Your task to perform on an android device: Clear all items from cart on target. Add jbl charge 4 to the cart on target Image 0: 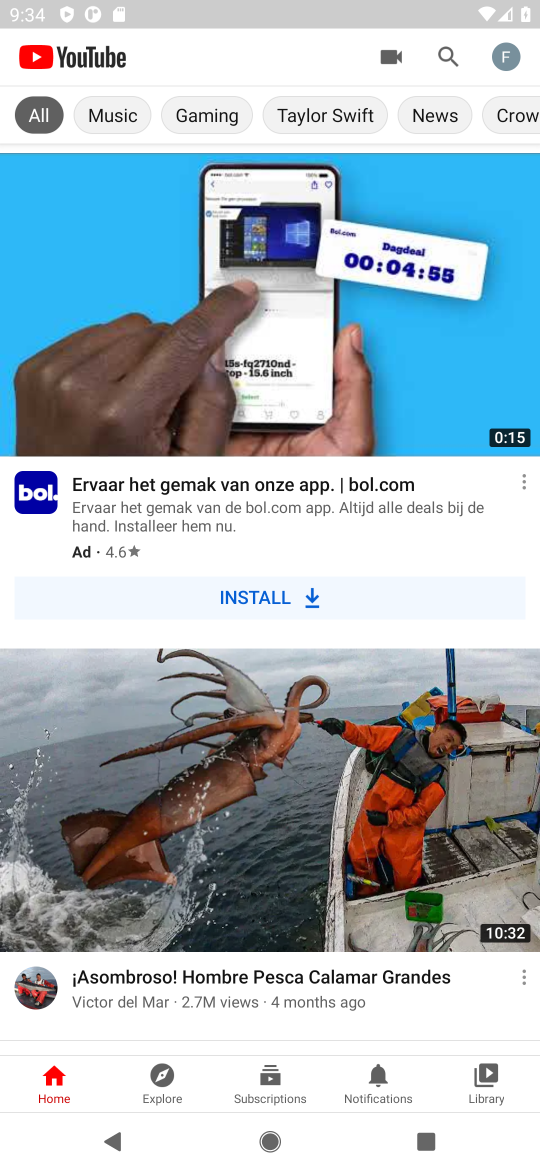
Step 0: press home button
Your task to perform on an android device: Clear all items from cart on target. Add jbl charge 4 to the cart on target Image 1: 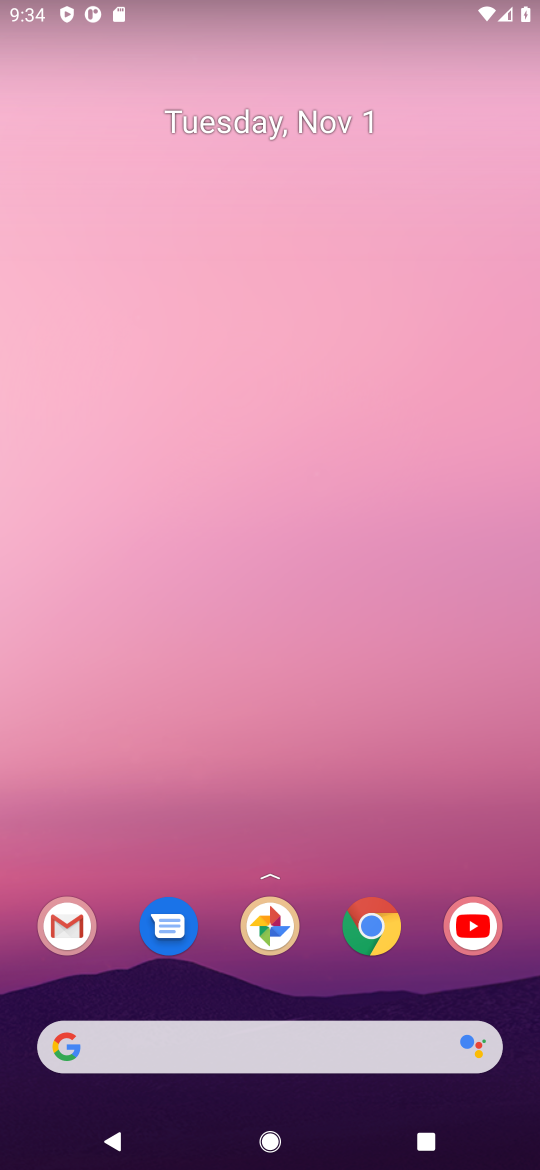
Step 1: click (375, 937)
Your task to perform on an android device: Clear all items from cart on target. Add jbl charge 4 to the cart on target Image 2: 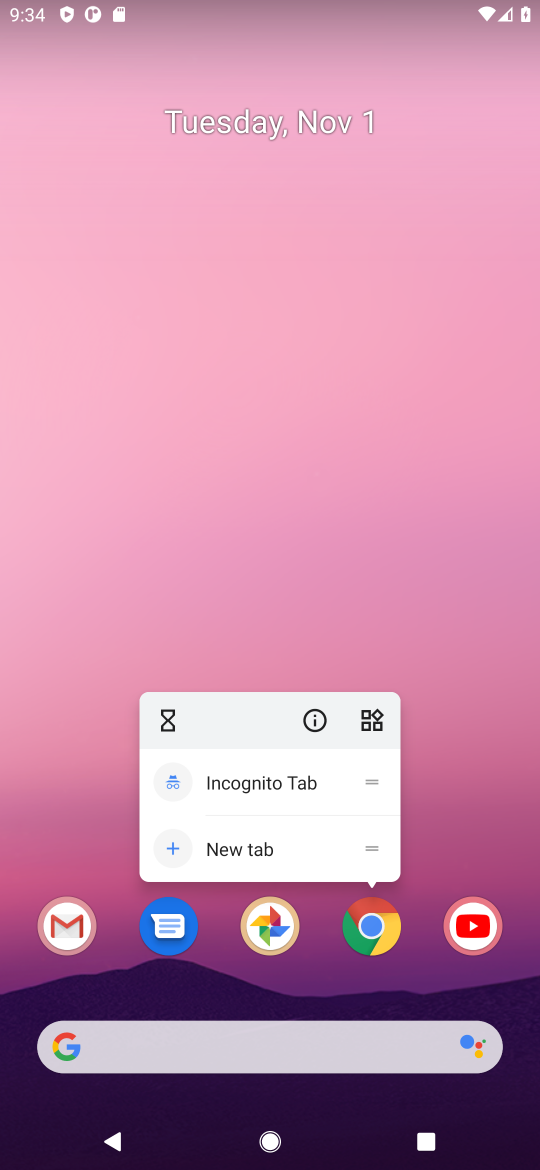
Step 2: click (381, 931)
Your task to perform on an android device: Clear all items from cart on target. Add jbl charge 4 to the cart on target Image 3: 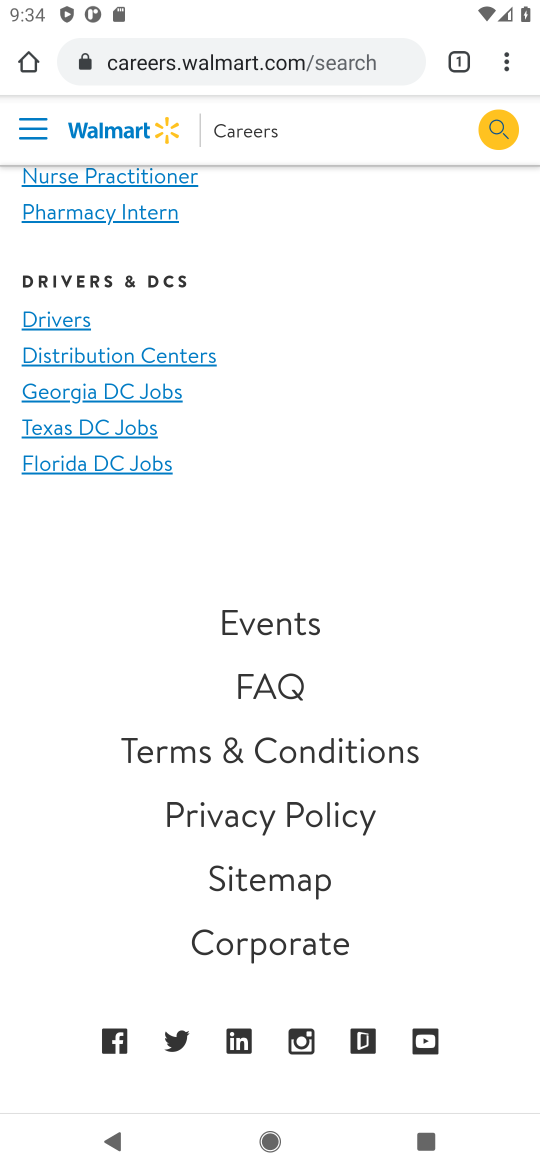
Step 3: click (218, 73)
Your task to perform on an android device: Clear all items from cart on target. Add jbl charge 4 to the cart on target Image 4: 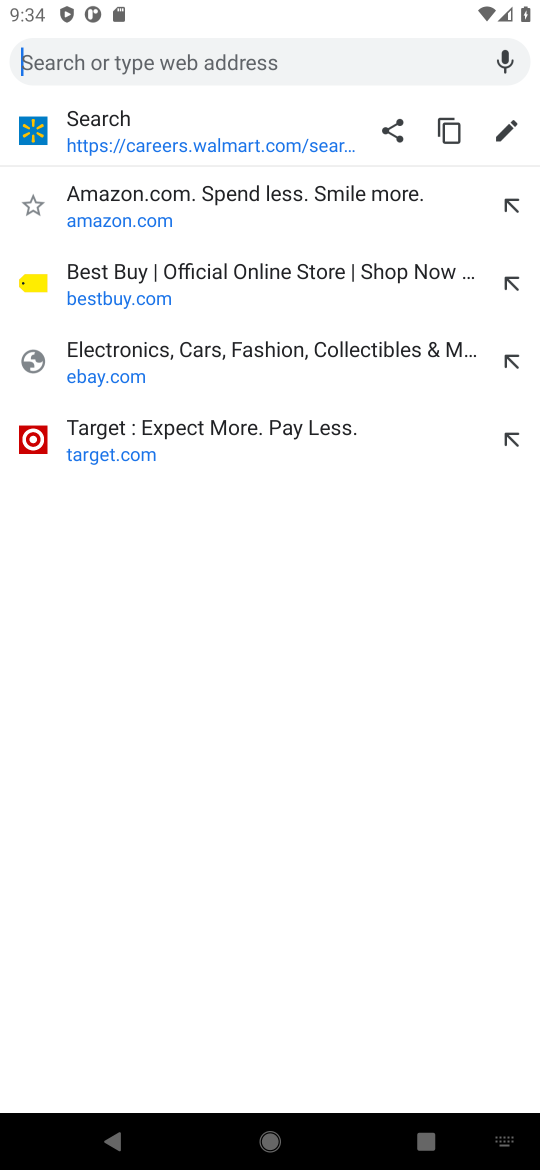
Step 4: type "target"
Your task to perform on an android device: Clear all items from cart on target. Add jbl charge 4 to the cart on target Image 5: 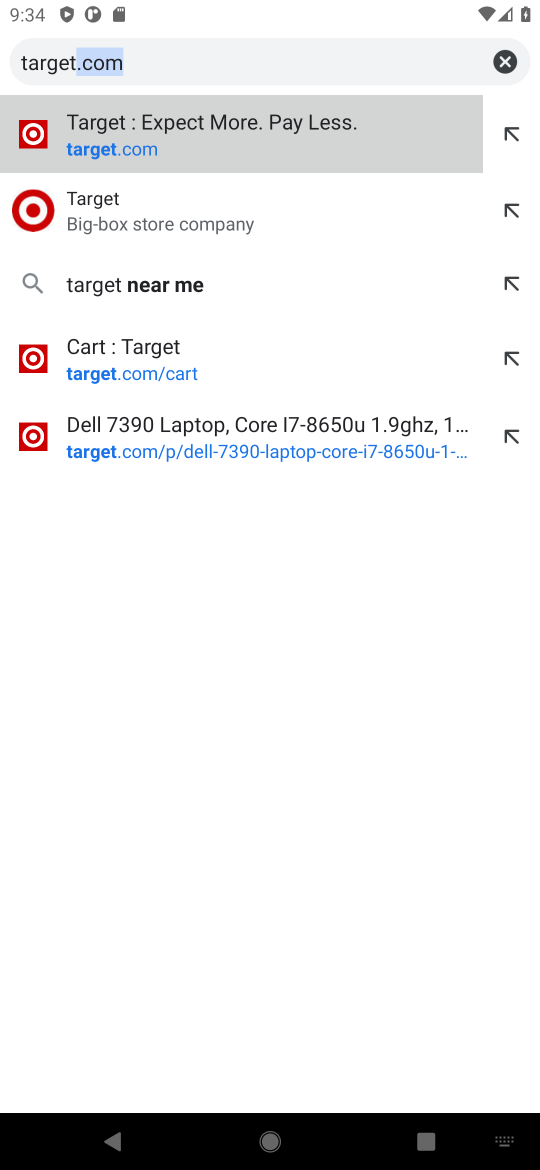
Step 5: type ""
Your task to perform on an android device: Clear all items from cart on target. Add jbl charge 4 to the cart on target Image 6: 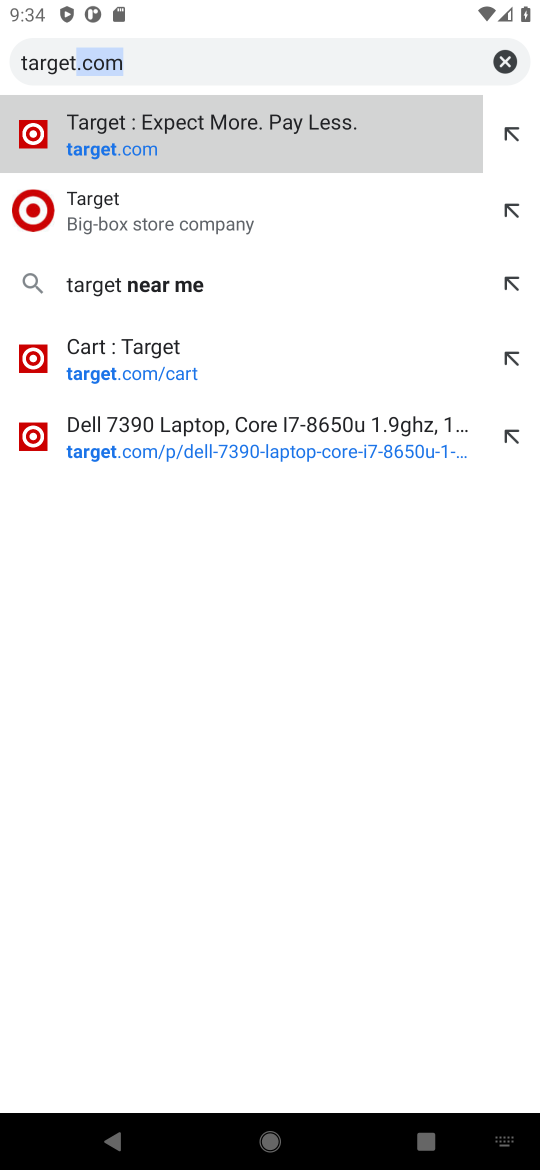
Step 6: click (238, 142)
Your task to perform on an android device: Clear all items from cart on target. Add jbl charge 4 to the cart on target Image 7: 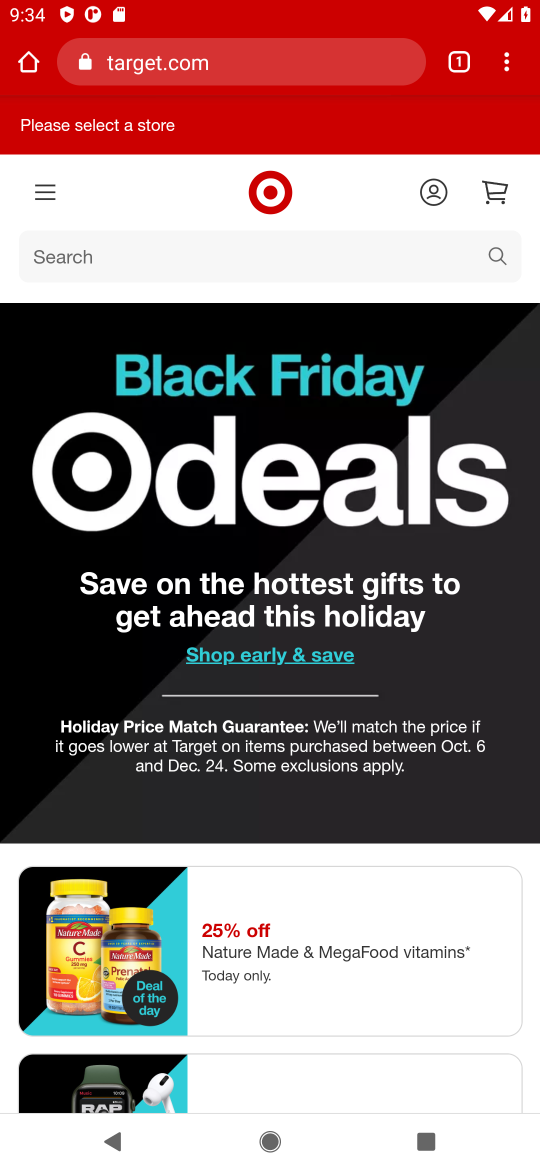
Step 7: click (489, 243)
Your task to perform on an android device: Clear all items from cart on target. Add jbl charge 4 to the cart on target Image 8: 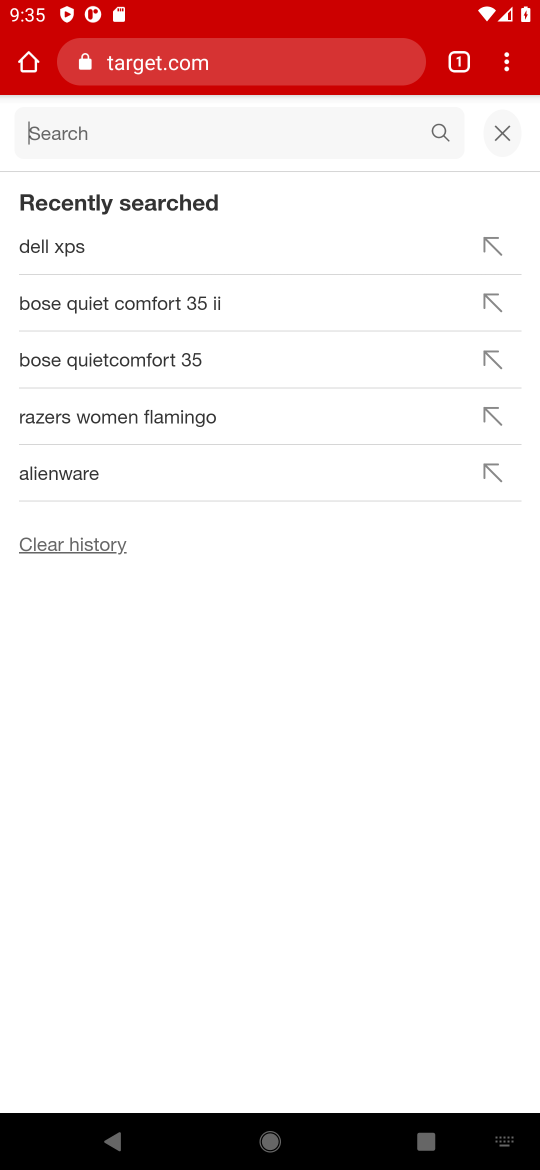
Step 8: type "jbl charge 4 "
Your task to perform on an android device: Clear all items from cart on target. Add jbl charge 4 to the cart on target Image 9: 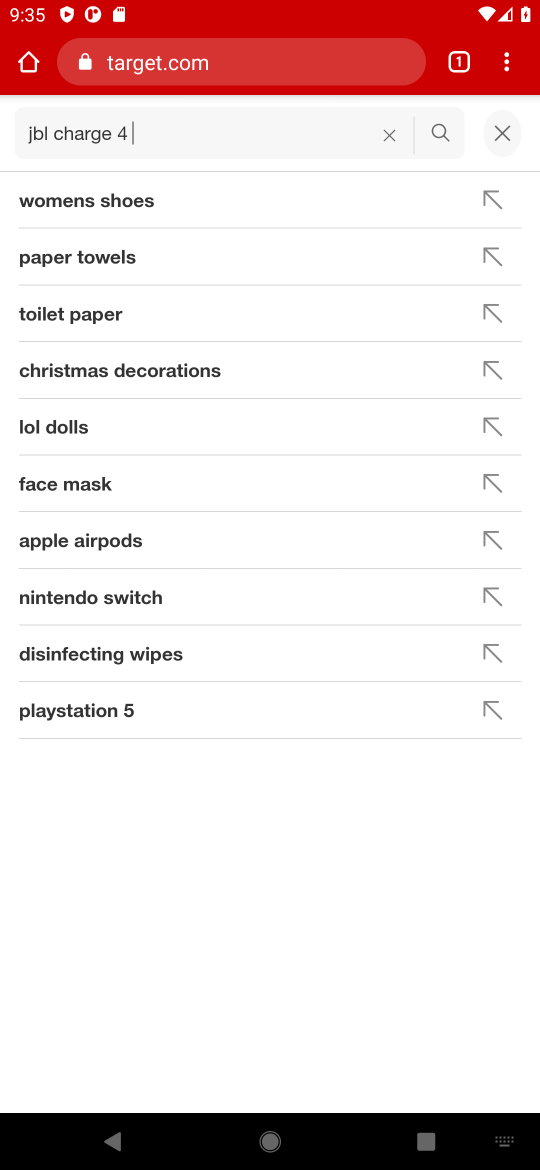
Step 9: type ""
Your task to perform on an android device: Clear all items from cart on target. Add jbl charge 4 to the cart on target Image 10: 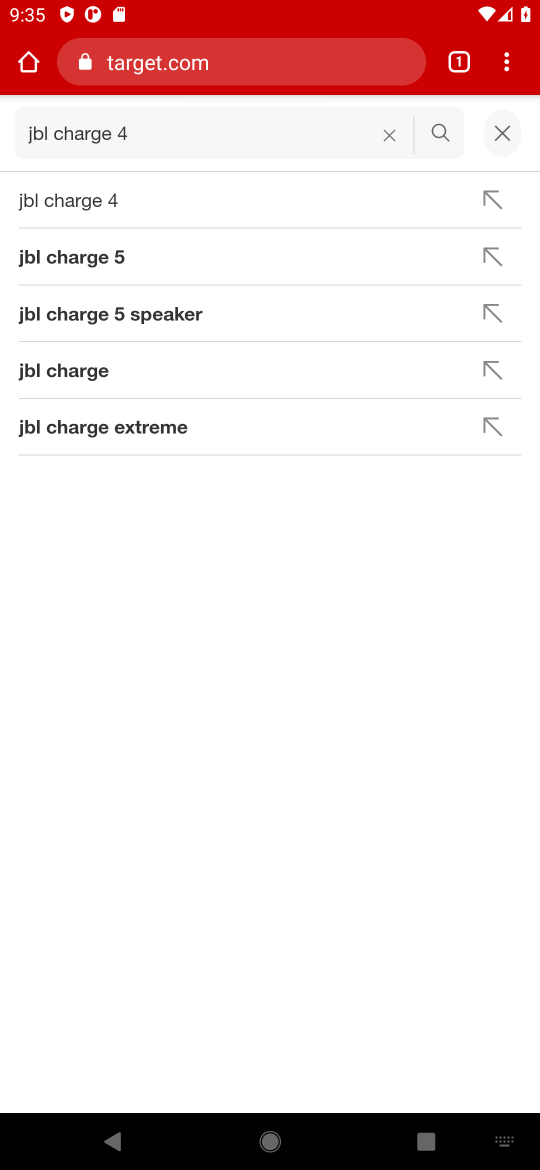
Step 10: click (64, 194)
Your task to perform on an android device: Clear all items from cart on target. Add jbl charge 4 to the cart on target Image 11: 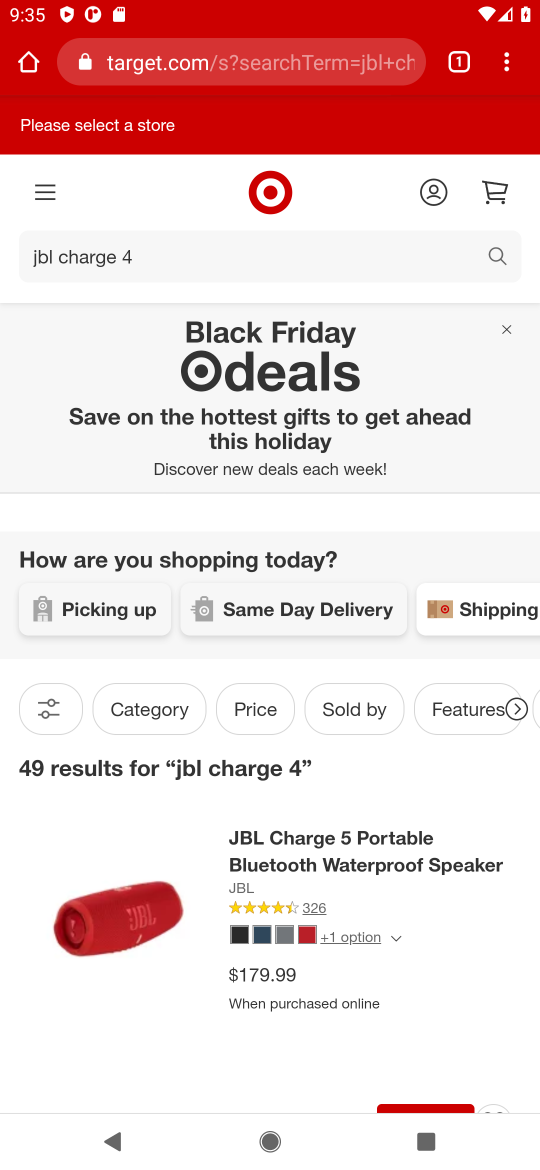
Step 11: drag from (307, 959) to (321, 541)
Your task to perform on an android device: Clear all items from cart on target. Add jbl charge 4 to the cart on target Image 12: 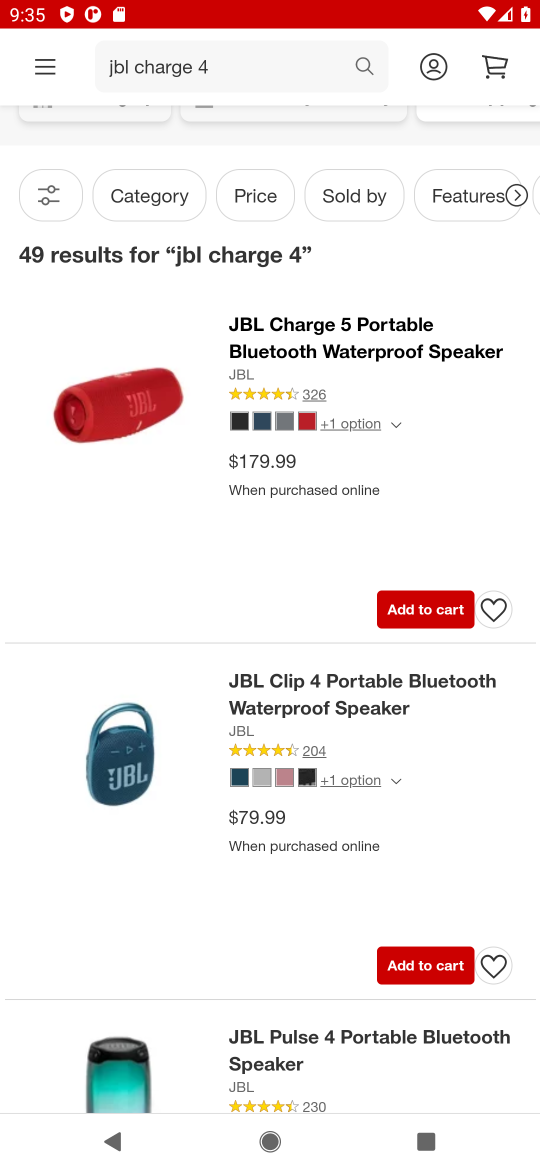
Step 12: drag from (271, 1058) to (324, 264)
Your task to perform on an android device: Clear all items from cart on target. Add jbl charge 4 to the cart on target Image 13: 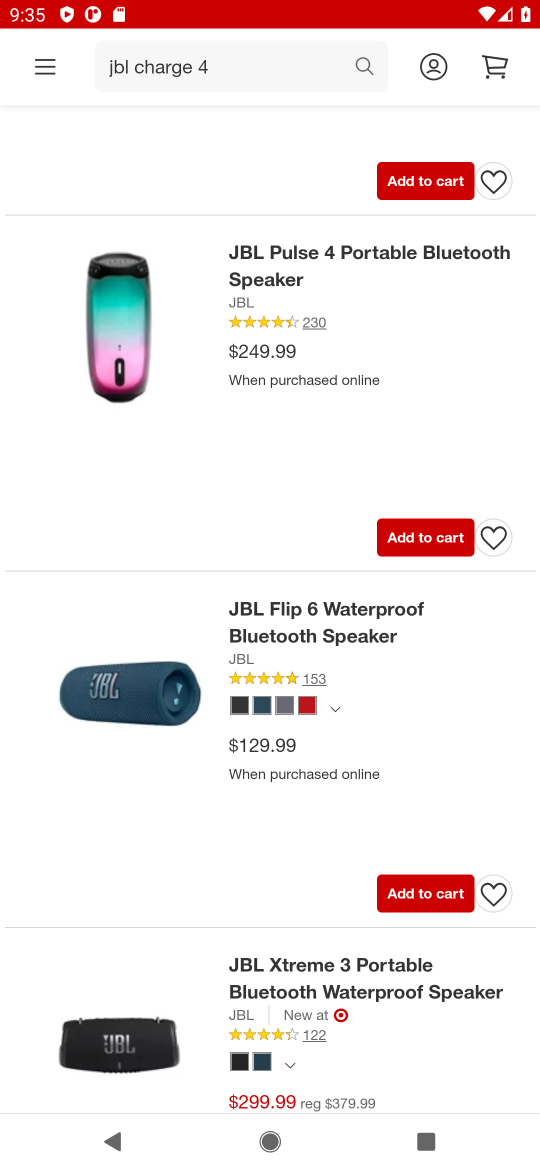
Step 13: drag from (313, 989) to (321, 492)
Your task to perform on an android device: Clear all items from cart on target. Add jbl charge 4 to the cart on target Image 14: 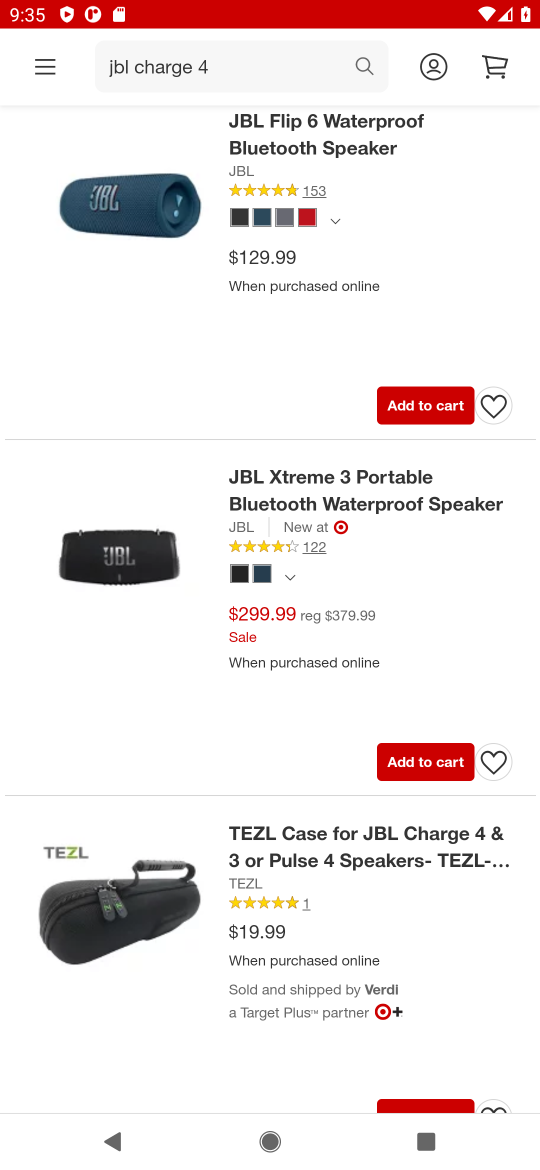
Step 14: drag from (300, 922) to (300, 734)
Your task to perform on an android device: Clear all items from cart on target. Add jbl charge 4 to the cart on target Image 15: 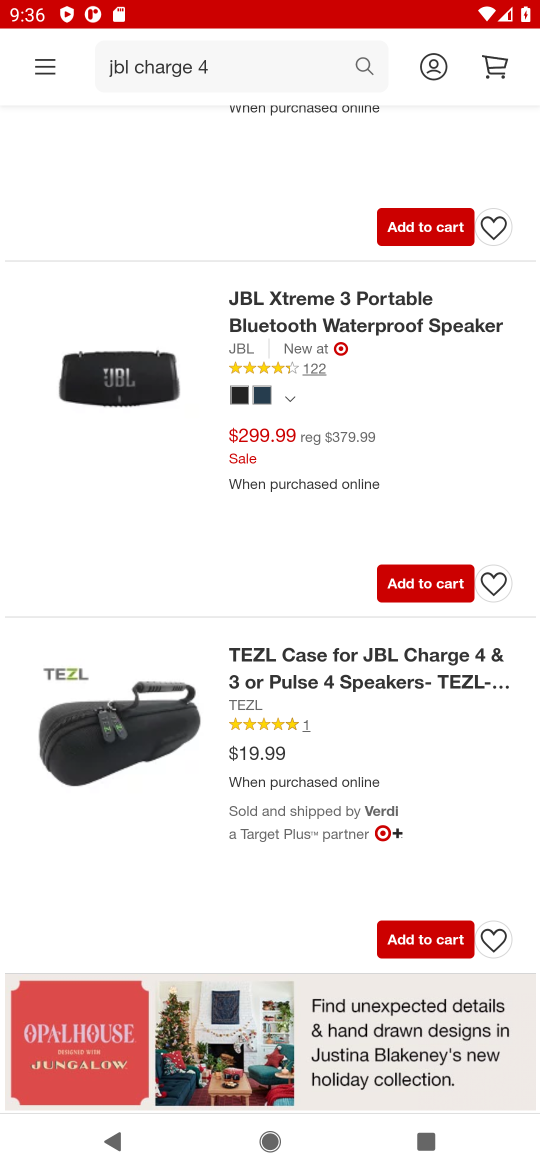
Step 15: click (316, 674)
Your task to perform on an android device: Clear all items from cart on target. Add jbl charge 4 to the cart on target Image 16: 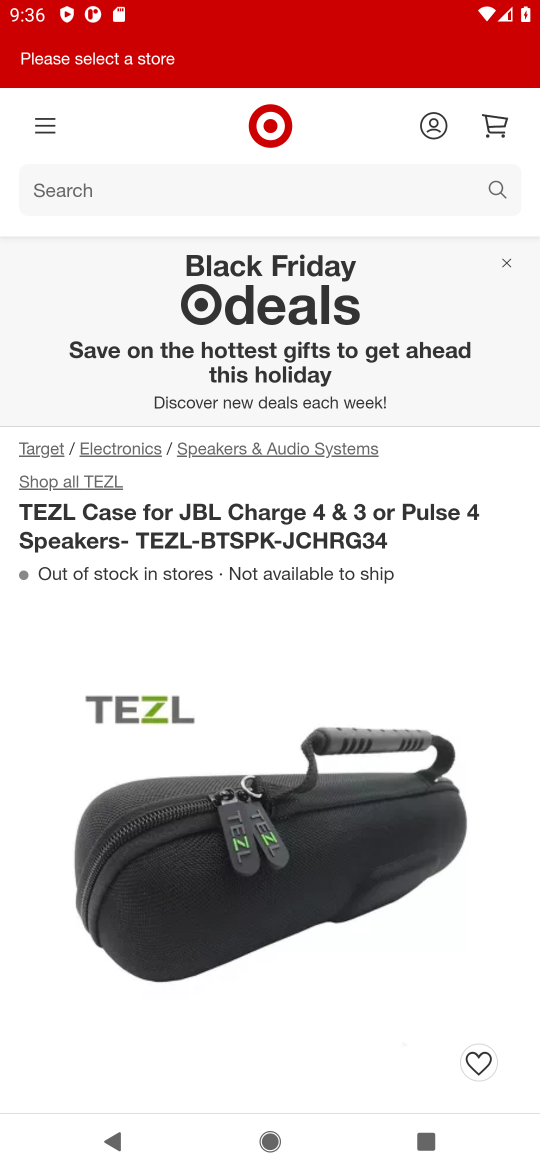
Step 16: drag from (259, 1050) to (283, 75)
Your task to perform on an android device: Clear all items from cart on target. Add jbl charge 4 to the cart on target Image 17: 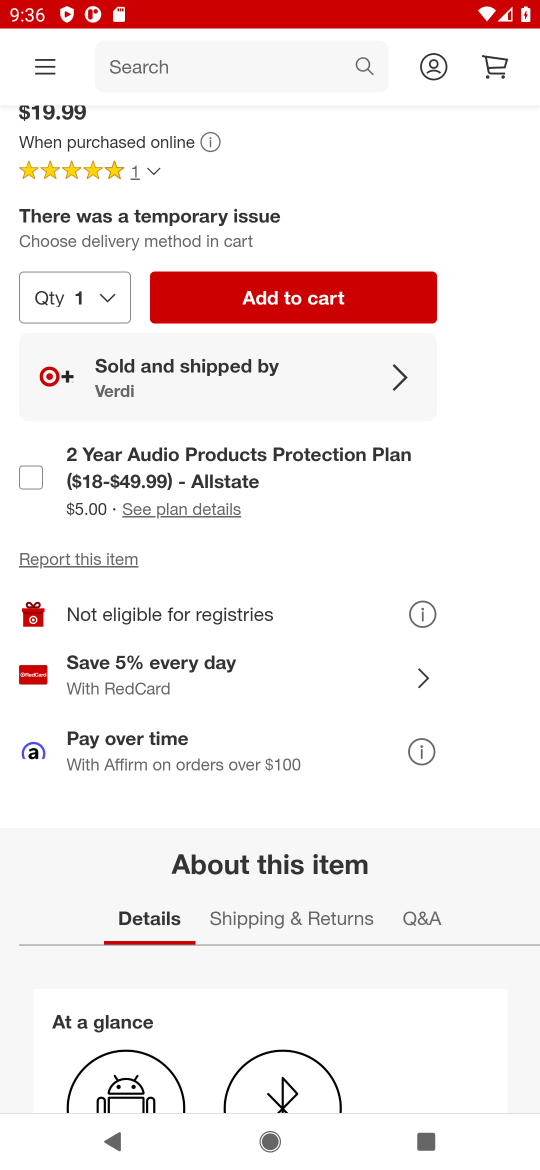
Step 17: click (318, 298)
Your task to perform on an android device: Clear all items from cart on target. Add jbl charge 4 to the cart on target Image 18: 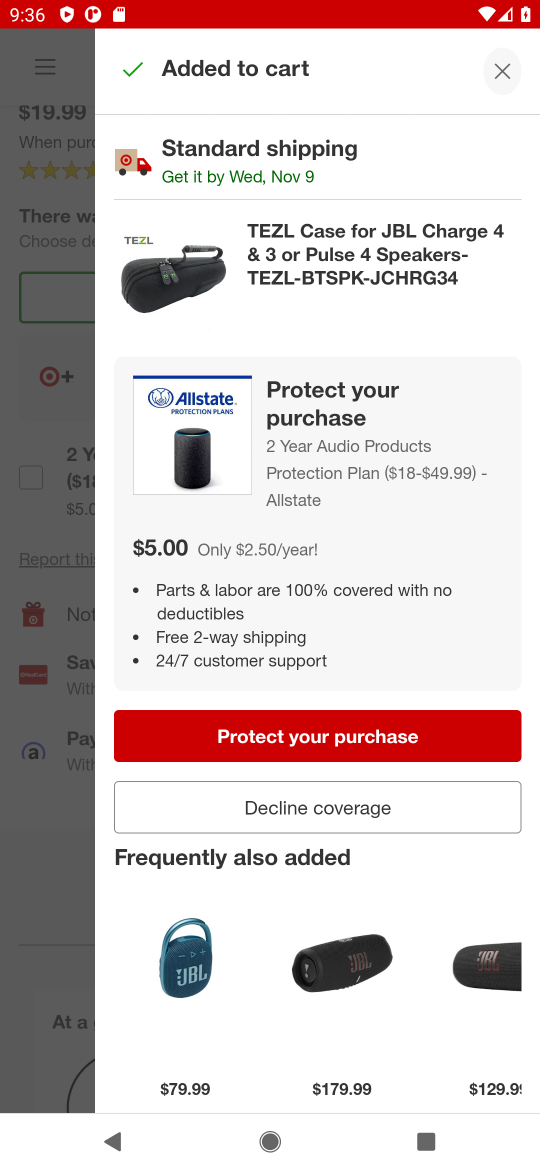
Step 18: click (321, 743)
Your task to perform on an android device: Clear all items from cart on target. Add jbl charge 4 to the cart on target Image 19: 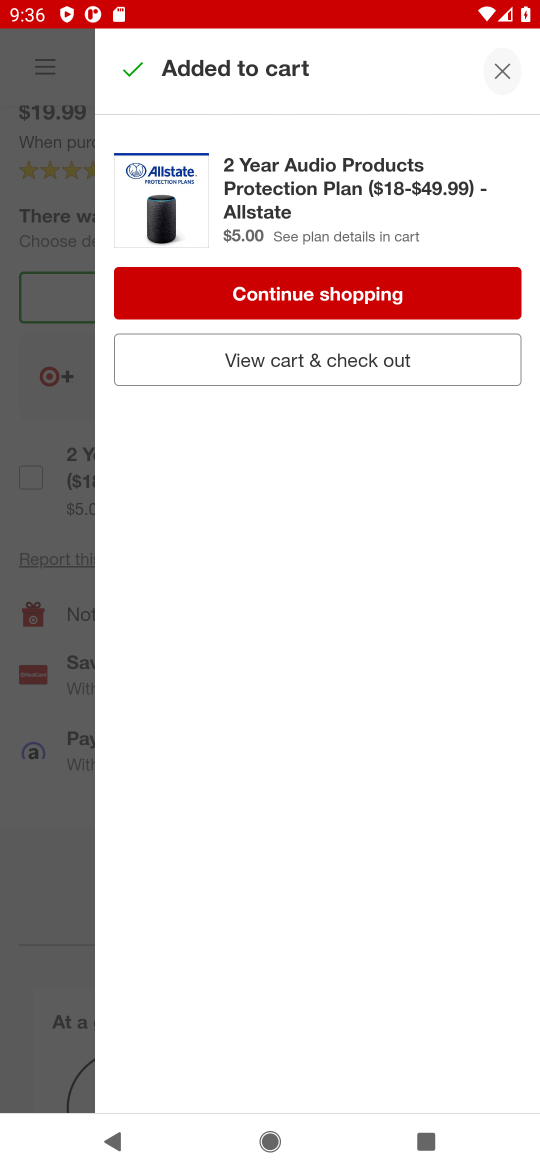
Step 19: click (290, 347)
Your task to perform on an android device: Clear all items from cart on target. Add jbl charge 4 to the cart on target Image 20: 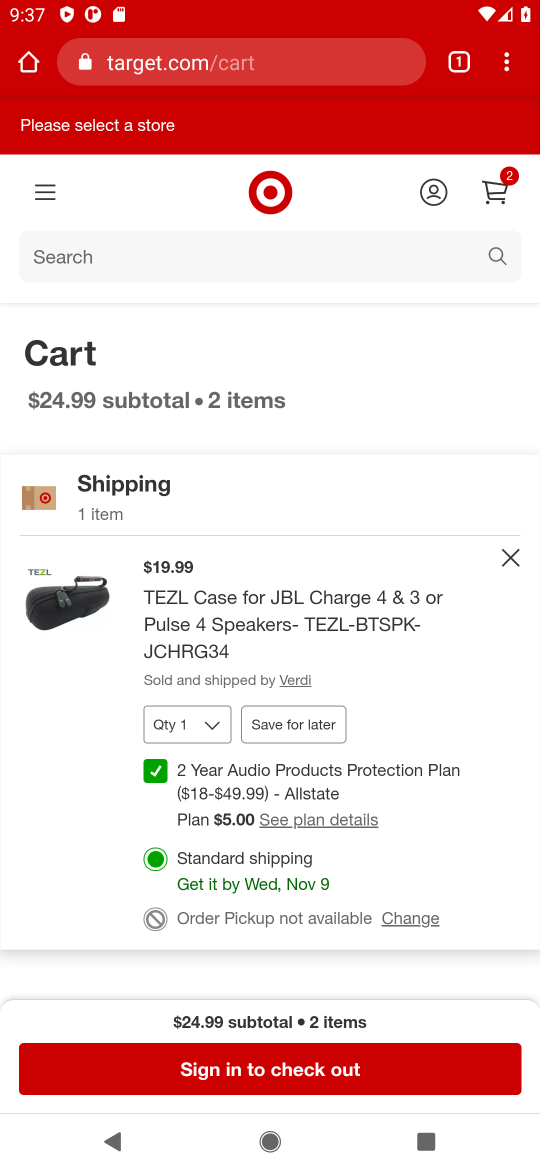
Step 20: task complete